Your task to perform on an android device: Open Google Maps Image 0: 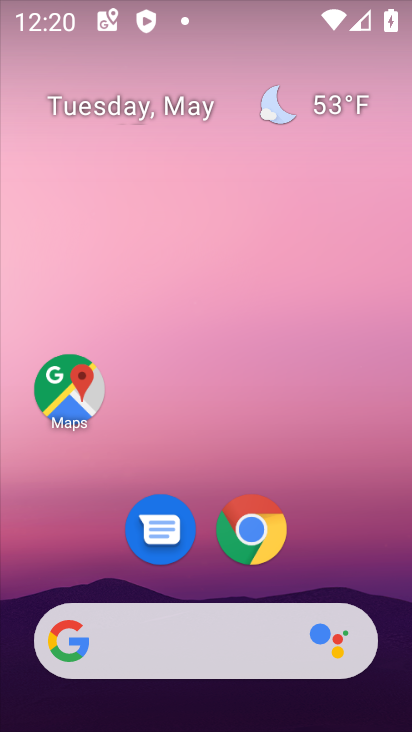
Step 0: drag from (189, 380) to (184, 299)
Your task to perform on an android device: Open Google Maps Image 1: 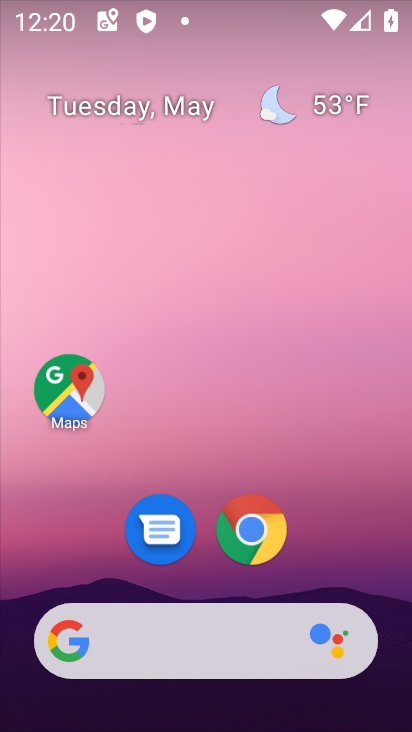
Step 1: drag from (210, 721) to (187, 123)
Your task to perform on an android device: Open Google Maps Image 2: 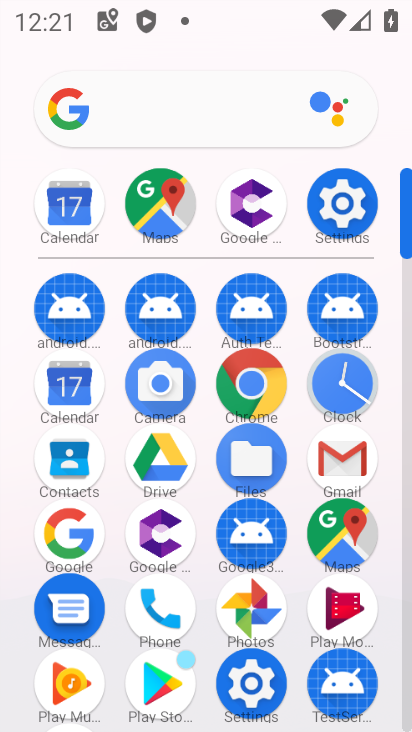
Step 2: click (343, 528)
Your task to perform on an android device: Open Google Maps Image 3: 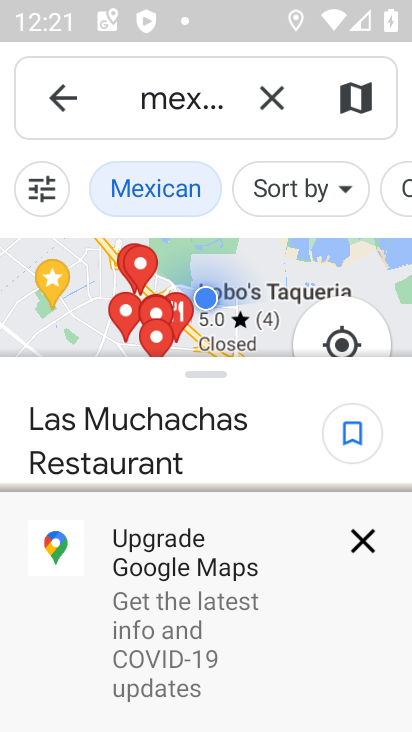
Step 3: task complete